Your task to perform on an android device: turn pop-ups on in chrome Image 0: 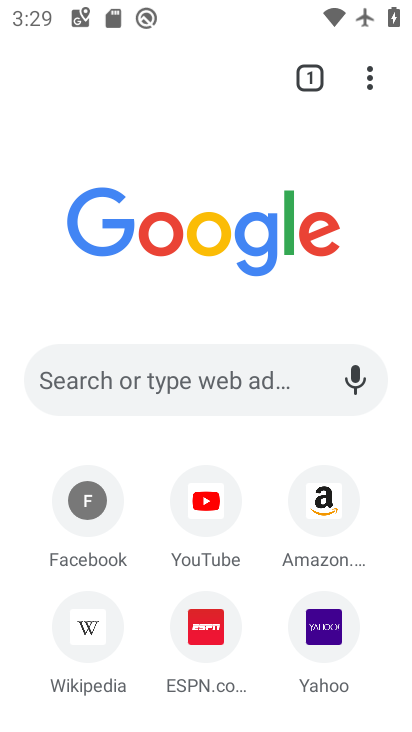
Step 0: click (371, 84)
Your task to perform on an android device: turn pop-ups on in chrome Image 1: 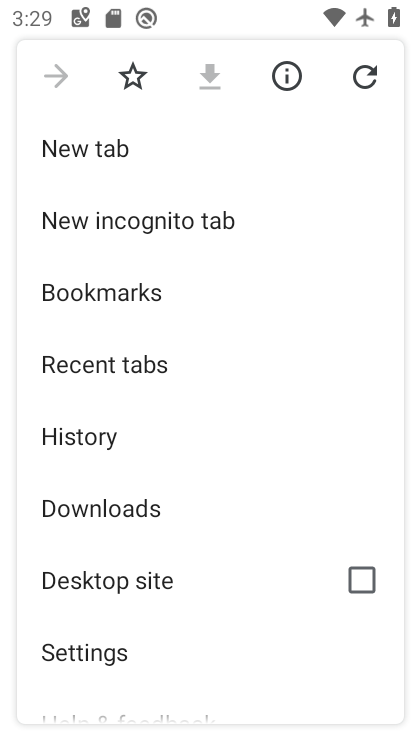
Step 1: drag from (132, 625) to (207, 372)
Your task to perform on an android device: turn pop-ups on in chrome Image 2: 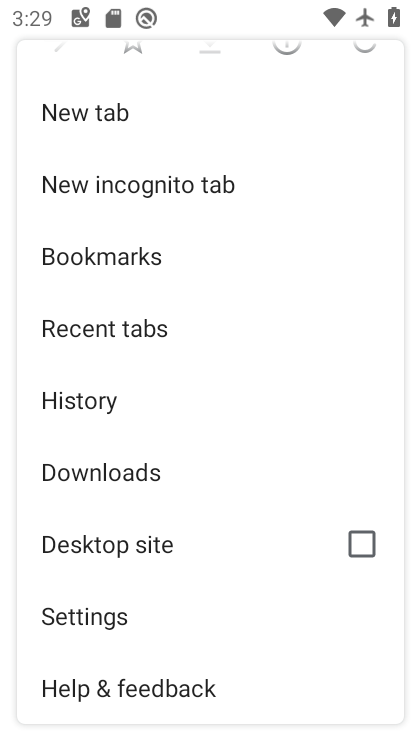
Step 2: click (80, 617)
Your task to perform on an android device: turn pop-ups on in chrome Image 3: 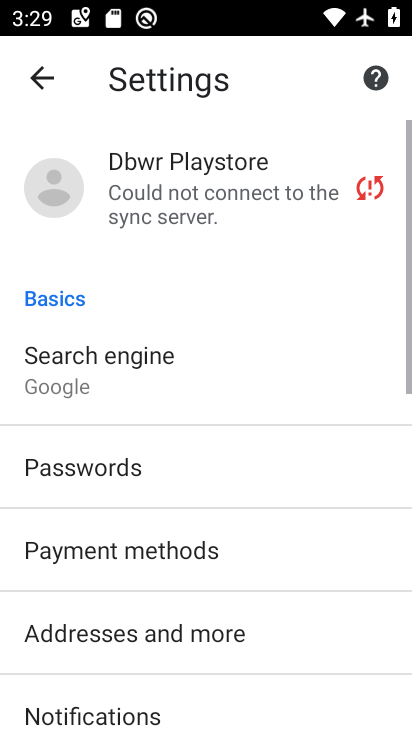
Step 3: drag from (115, 638) to (206, 306)
Your task to perform on an android device: turn pop-ups on in chrome Image 4: 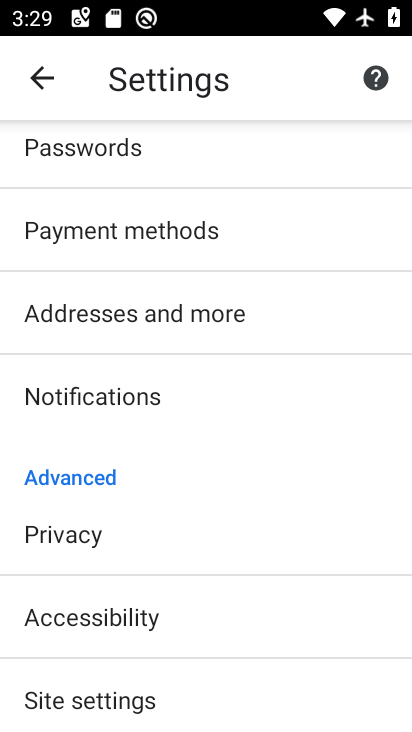
Step 4: click (89, 707)
Your task to perform on an android device: turn pop-ups on in chrome Image 5: 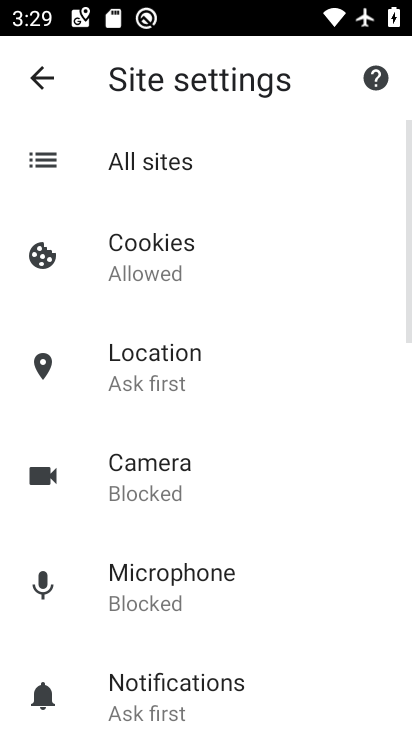
Step 5: drag from (146, 658) to (230, 335)
Your task to perform on an android device: turn pop-ups on in chrome Image 6: 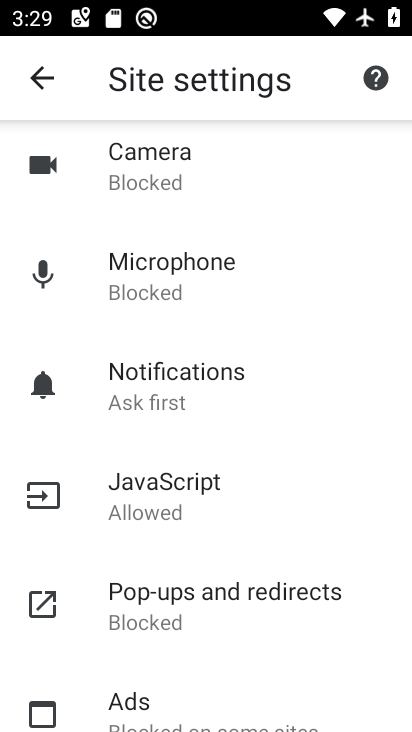
Step 6: click (159, 612)
Your task to perform on an android device: turn pop-ups on in chrome Image 7: 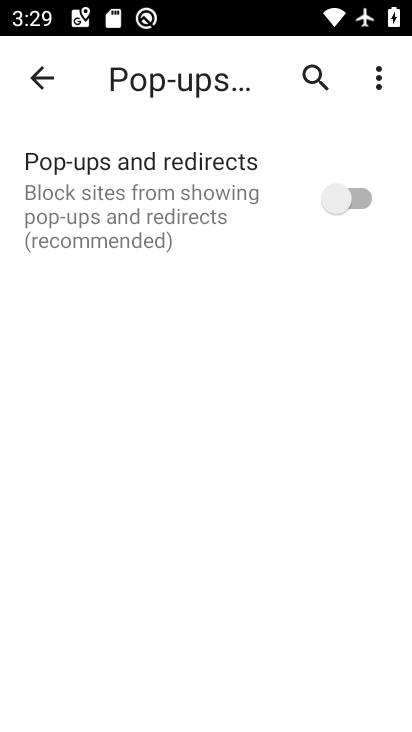
Step 7: task complete